Your task to perform on an android device: Open Yahoo.com Image 0: 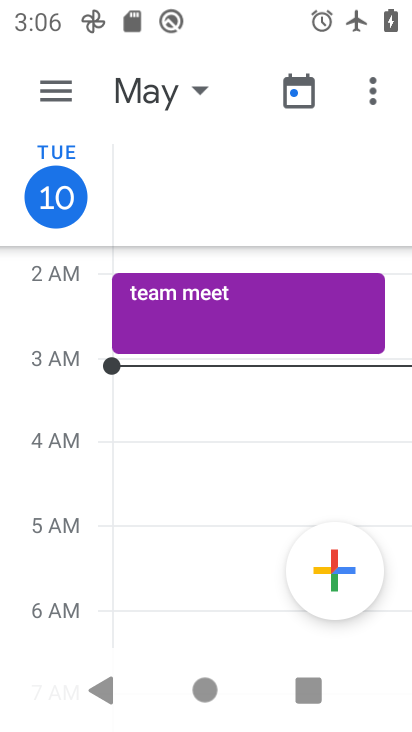
Step 0: press home button
Your task to perform on an android device: Open Yahoo.com Image 1: 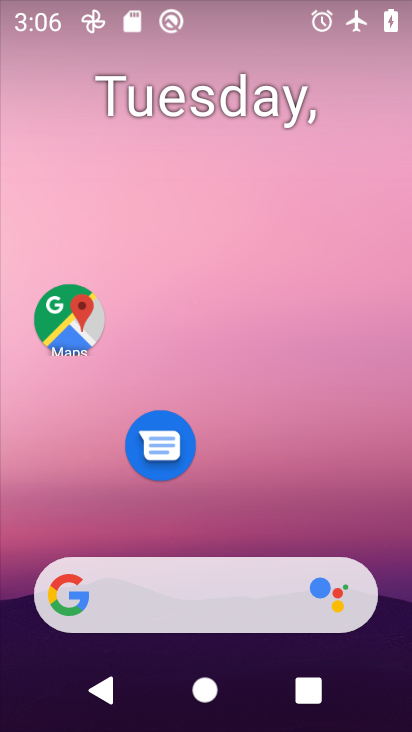
Step 1: drag from (272, 515) to (133, 50)
Your task to perform on an android device: Open Yahoo.com Image 2: 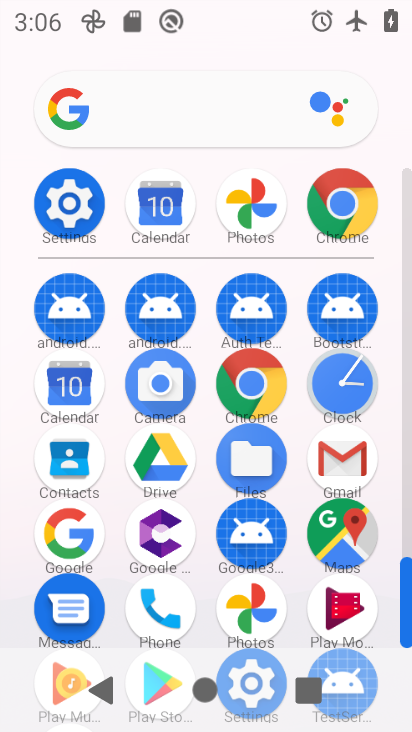
Step 2: click (238, 379)
Your task to perform on an android device: Open Yahoo.com Image 3: 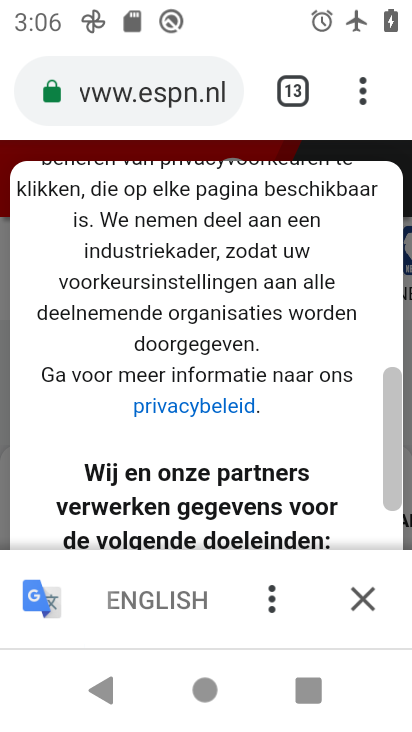
Step 3: click (361, 99)
Your task to perform on an android device: Open Yahoo.com Image 4: 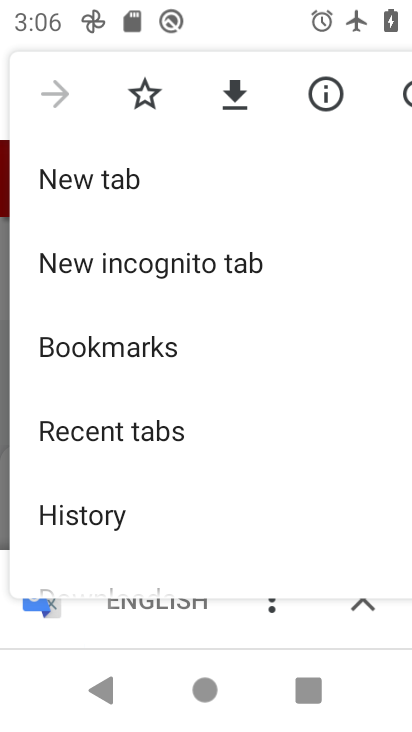
Step 4: click (110, 180)
Your task to perform on an android device: Open Yahoo.com Image 5: 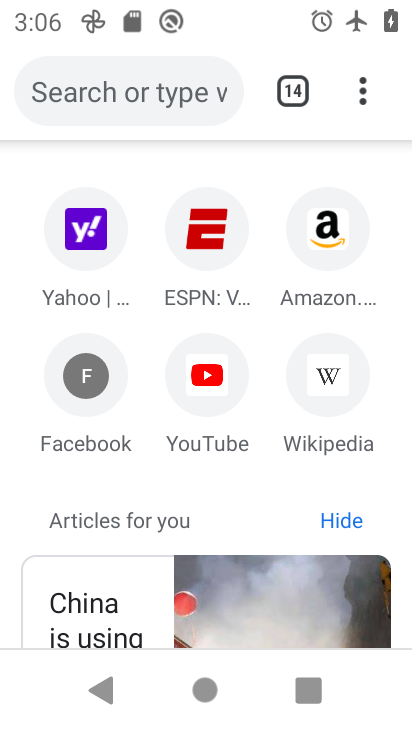
Step 5: click (82, 242)
Your task to perform on an android device: Open Yahoo.com Image 6: 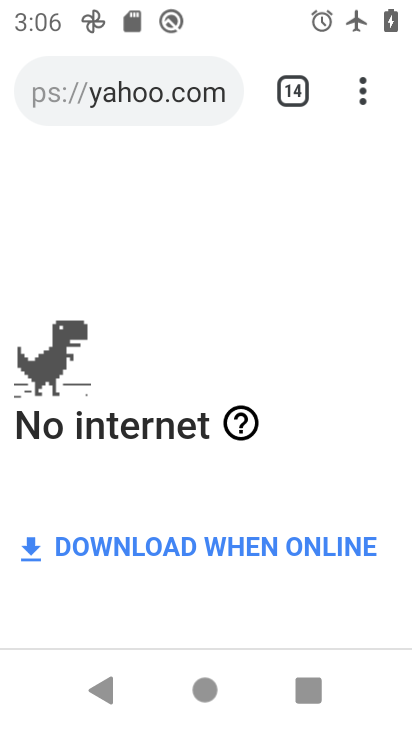
Step 6: task complete